Your task to perform on an android device: see sites visited before in the chrome app Image 0: 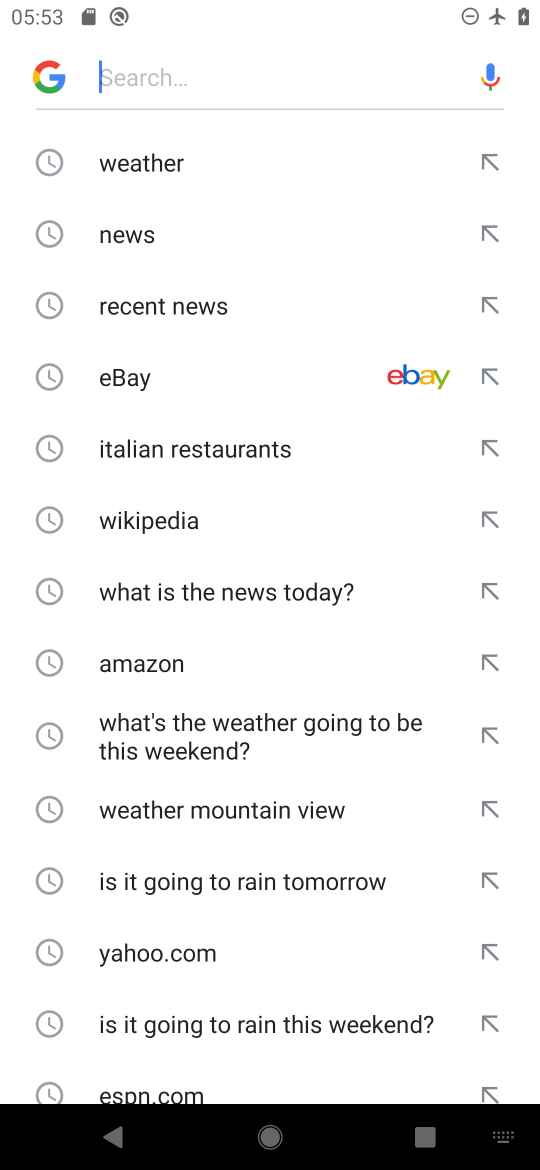
Step 0: press back button
Your task to perform on an android device: see sites visited before in the chrome app Image 1: 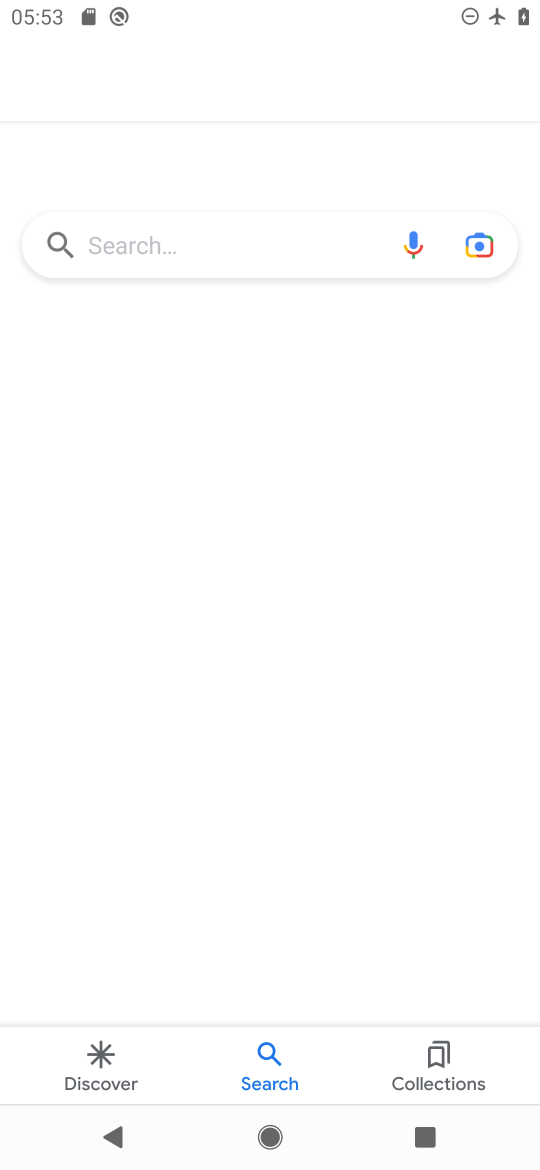
Step 1: press back button
Your task to perform on an android device: see sites visited before in the chrome app Image 2: 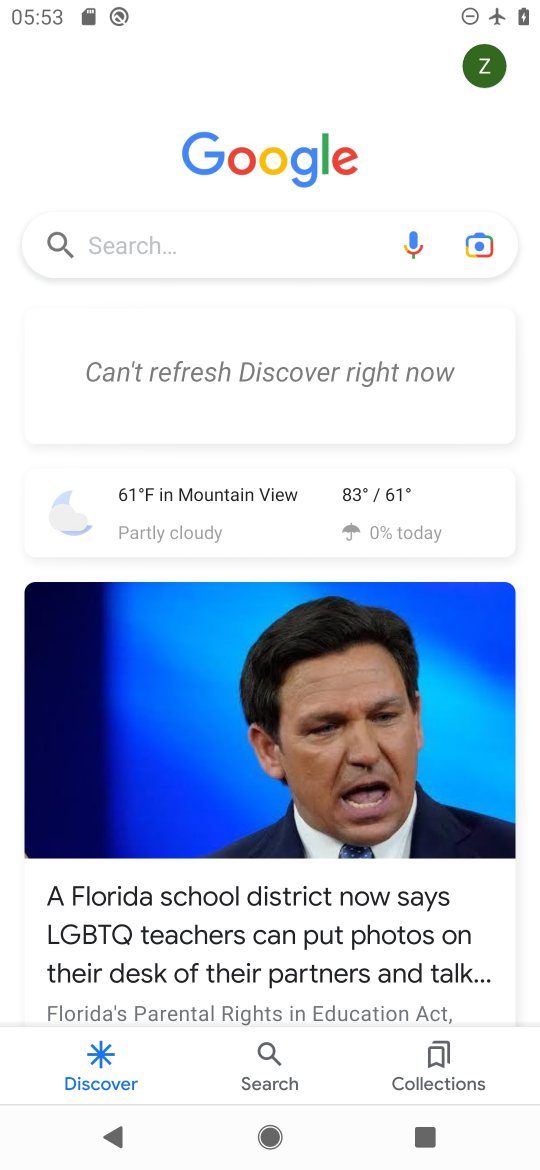
Step 2: press back button
Your task to perform on an android device: see sites visited before in the chrome app Image 3: 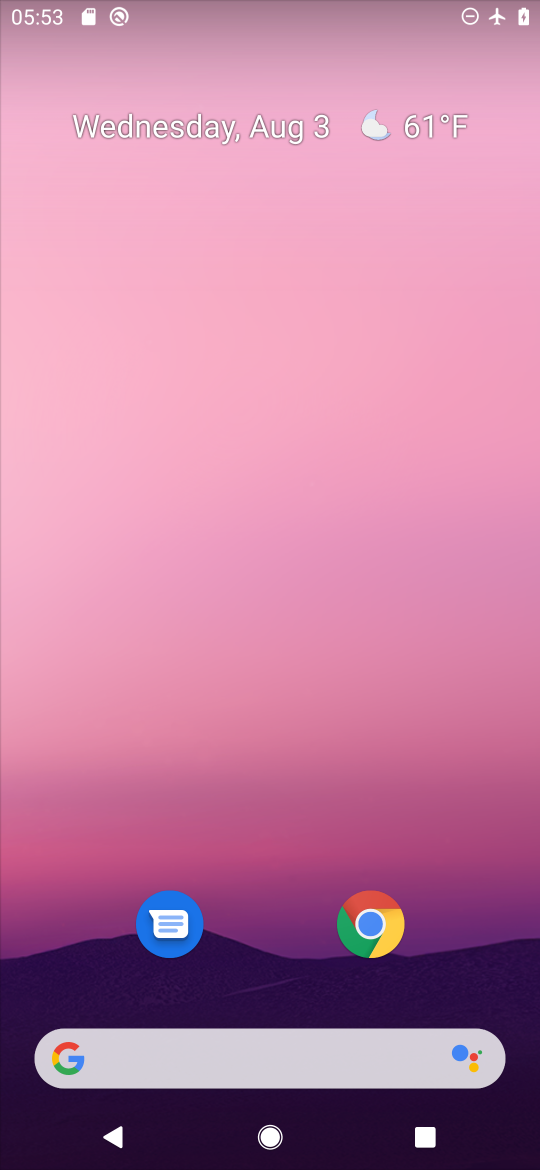
Step 3: click (336, 903)
Your task to perform on an android device: see sites visited before in the chrome app Image 4: 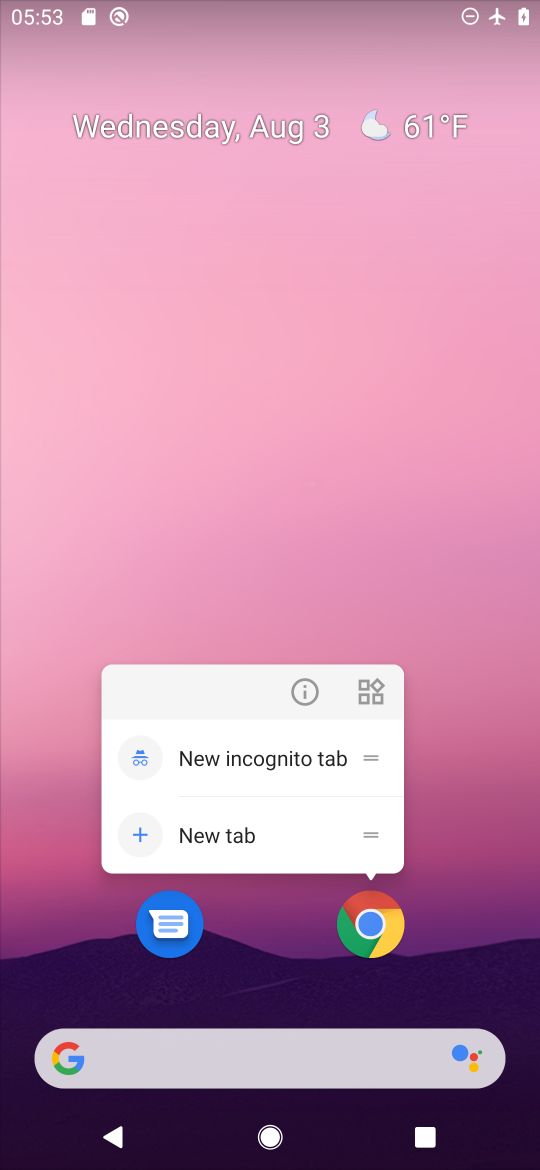
Step 4: click (349, 932)
Your task to perform on an android device: see sites visited before in the chrome app Image 5: 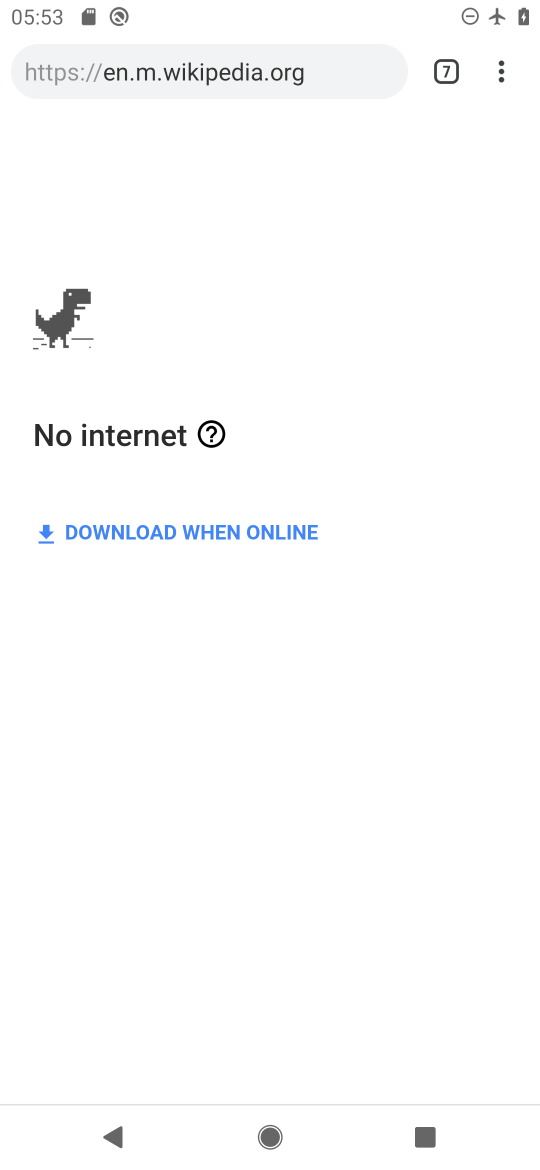
Step 5: task complete